Your task to perform on an android device: refresh tabs in the chrome app Image 0: 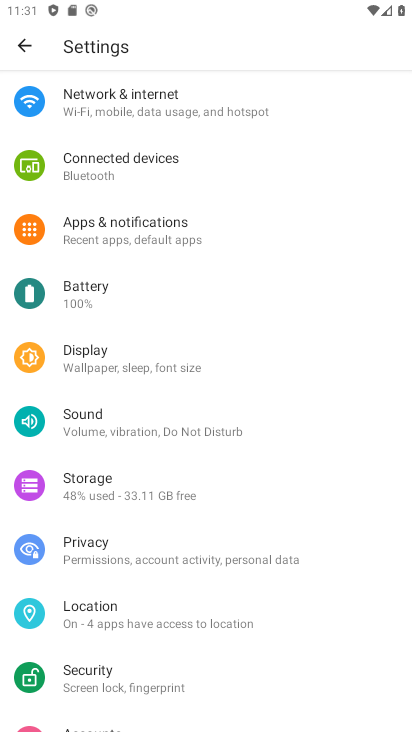
Step 0: press home button
Your task to perform on an android device: refresh tabs in the chrome app Image 1: 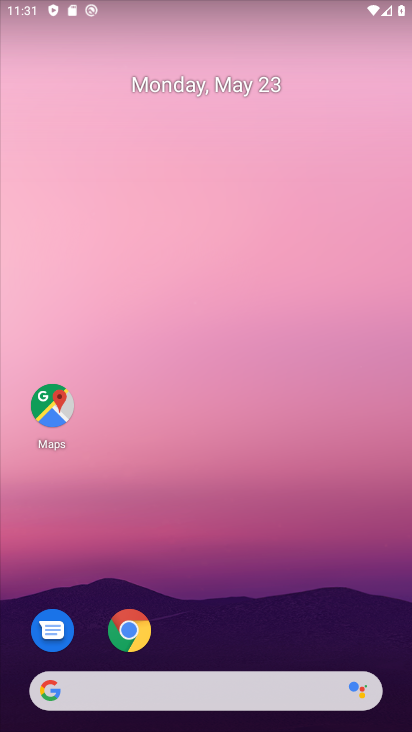
Step 1: click (123, 633)
Your task to perform on an android device: refresh tabs in the chrome app Image 2: 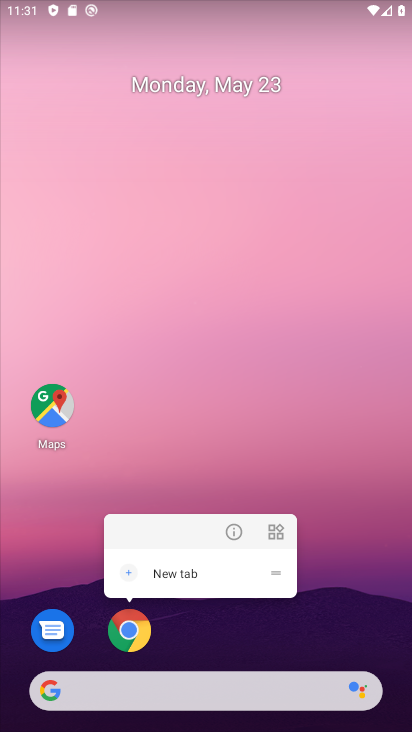
Step 2: click (124, 633)
Your task to perform on an android device: refresh tabs in the chrome app Image 3: 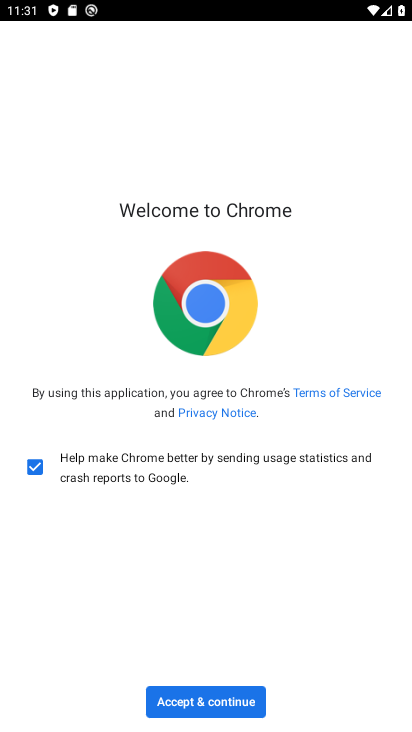
Step 3: click (204, 699)
Your task to perform on an android device: refresh tabs in the chrome app Image 4: 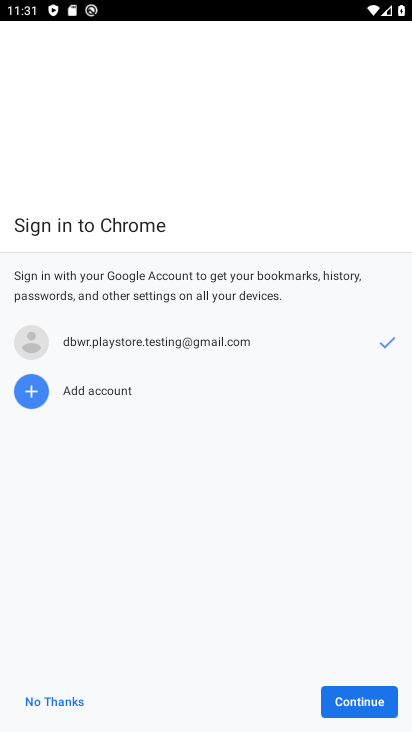
Step 4: click (382, 705)
Your task to perform on an android device: refresh tabs in the chrome app Image 5: 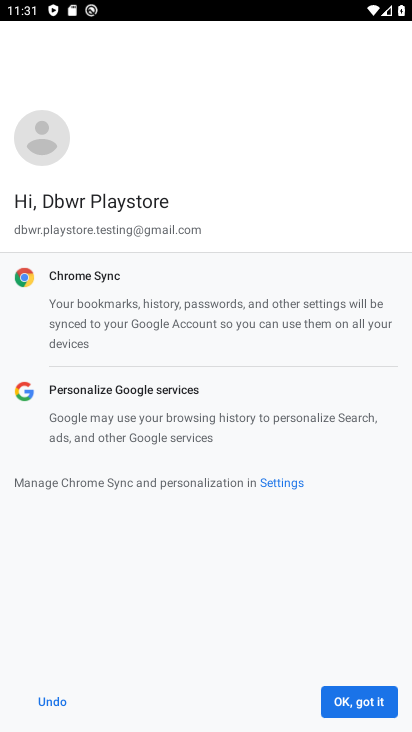
Step 5: click (374, 699)
Your task to perform on an android device: refresh tabs in the chrome app Image 6: 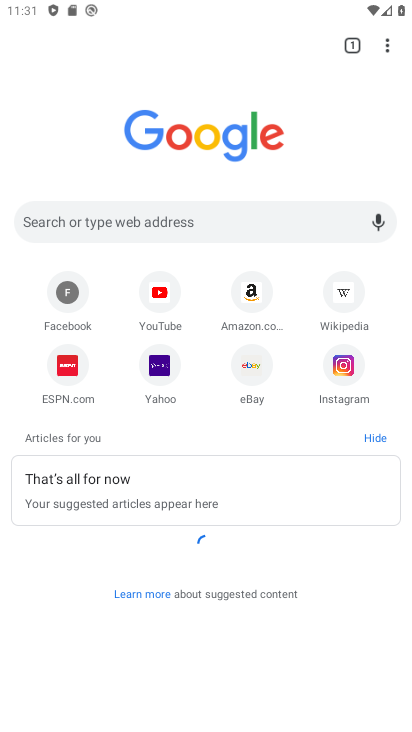
Step 6: click (387, 48)
Your task to perform on an android device: refresh tabs in the chrome app Image 7: 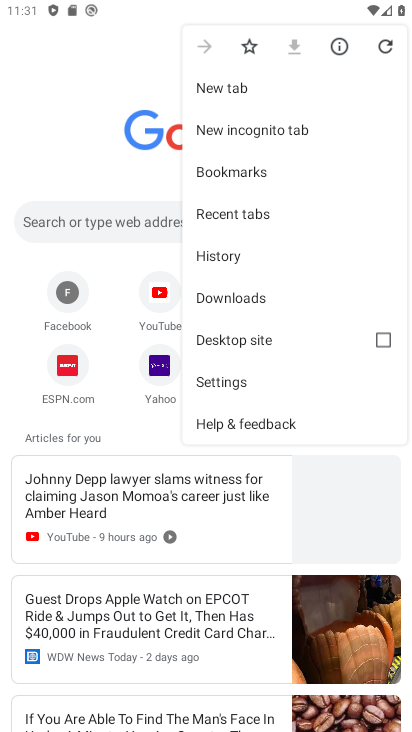
Step 7: click (379, 39)
Your task to perform on an android device: refresh tabs in the chrome app Image 8: 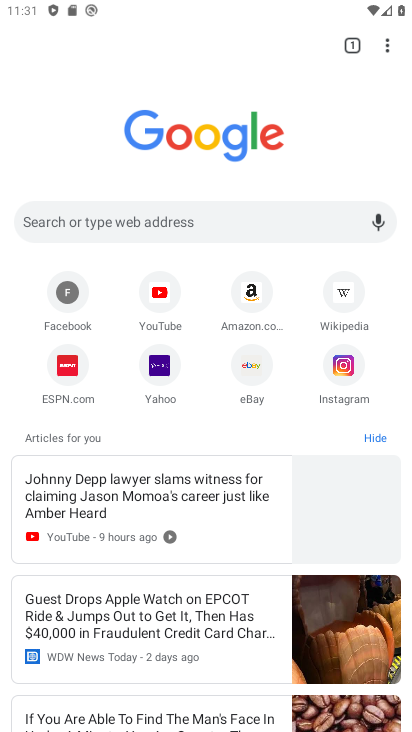
Step 8: task complete